Your task to perform on an android device: turn off picture-in-picture Image 0: 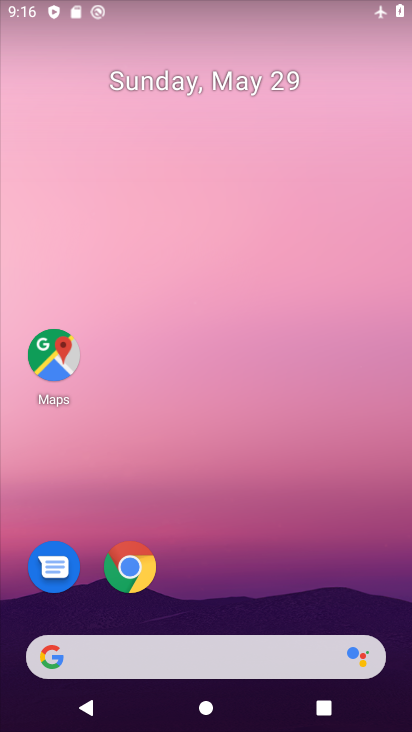
Step 0: drag from (398, 621) to (357, 39)
Your task to perform on an android device: turn off picture-in-picture Image 1: 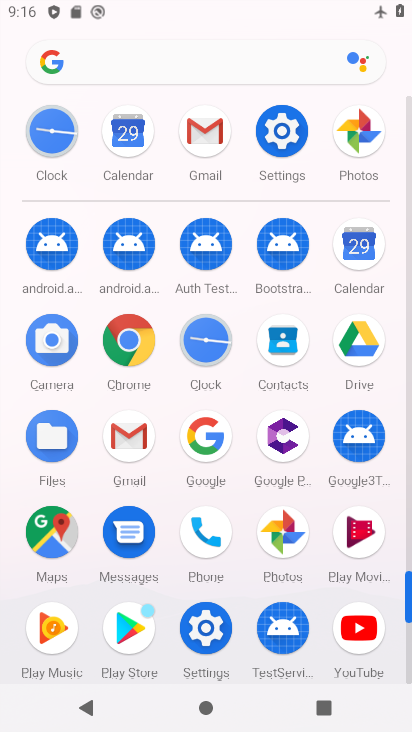
Step 1: click (406, 669)
Your task to perform on an android device: turn off picture-in-picture Image 2: 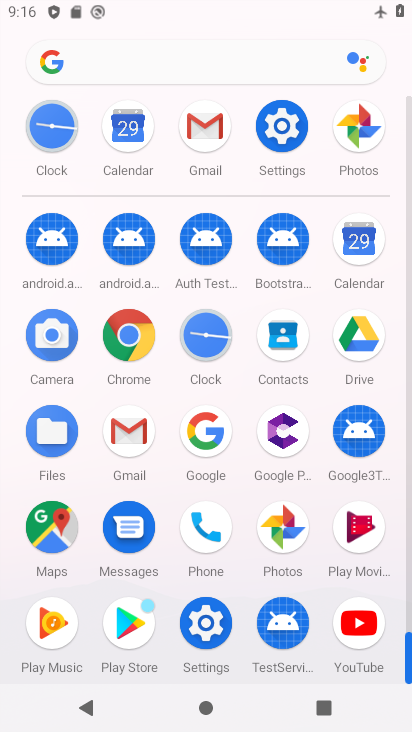
Step 2: click (208, 618)
Your task to perform on an android device: turn off picture-in-picture Image 3: 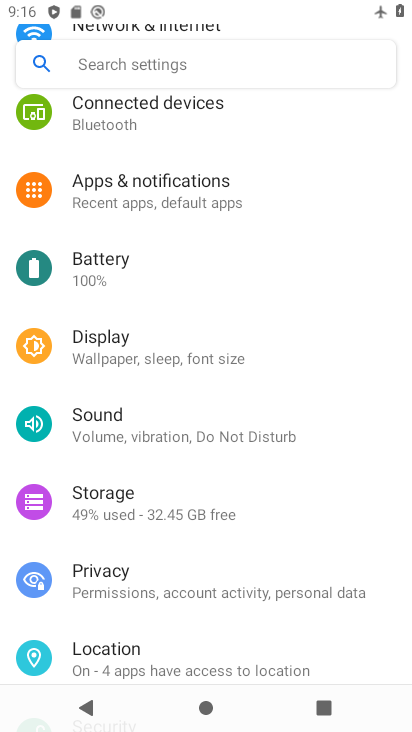
Step 3: click (154, 184)
Your task to perform on an android device: turn off picture-in-picture Image 4: 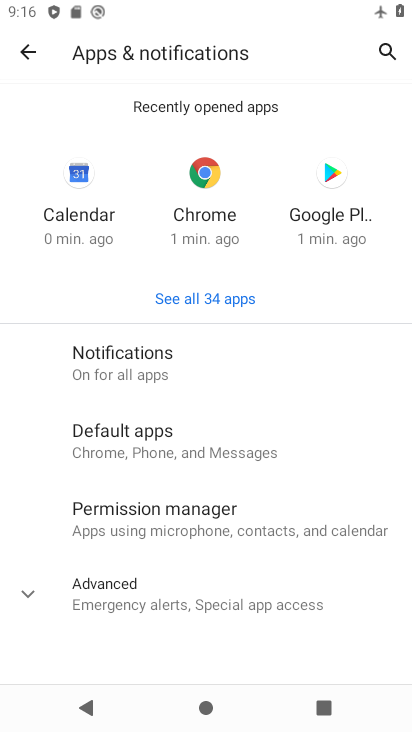
Step 4: click (30, 588)
Your task to perform on an android device: turn off picture-in-picture Image 5: 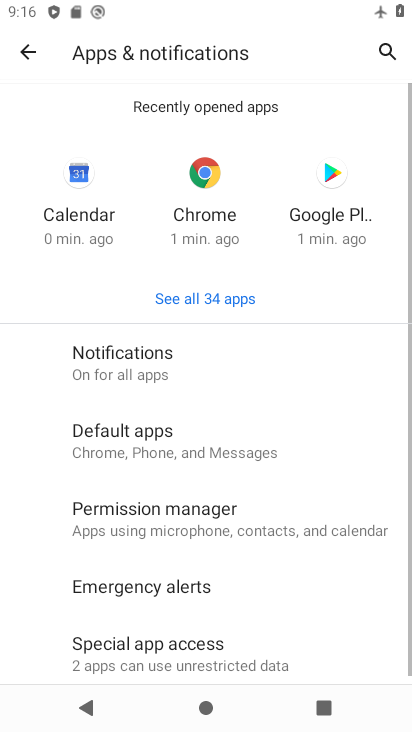
Step 5: drag from (247, 605) to (257, 305)
Your task to perform on an android device: turn off picture-in-picture Image 6: 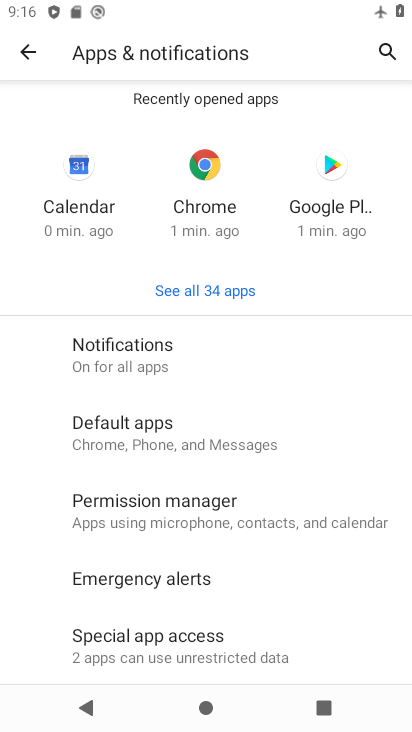
Step 6: click (151, 653)
Your task to perform on an android device: turn off picture-in-picture Image 7: 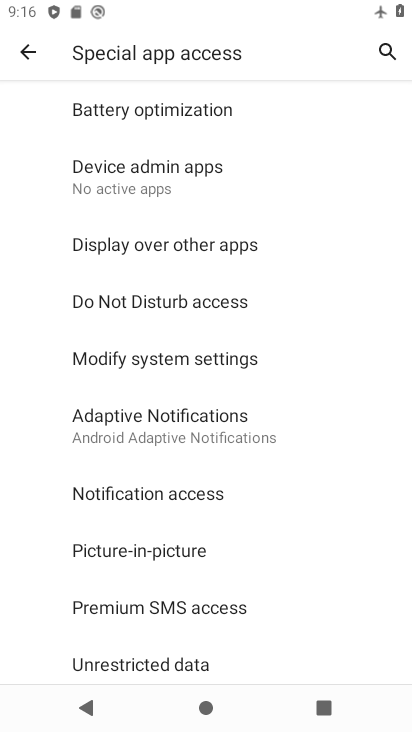
Step 7: click (123, 540)
Your task to perform on an android device: turn off picture-in-picture Image 8: 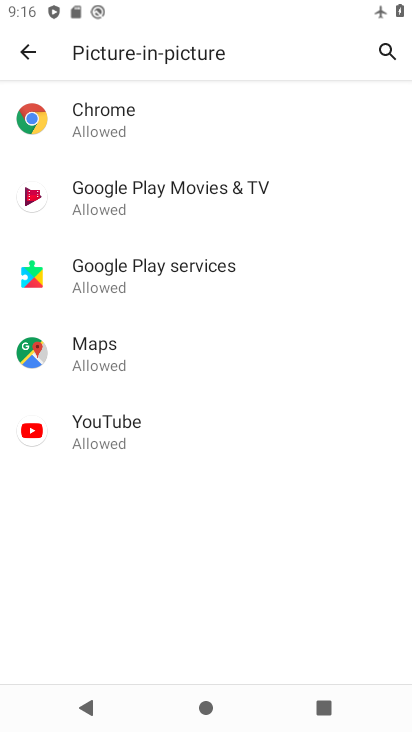
Step 8: click (91, 435)
Your task to perform on an android device: turn off picture-in-picture Image 9: 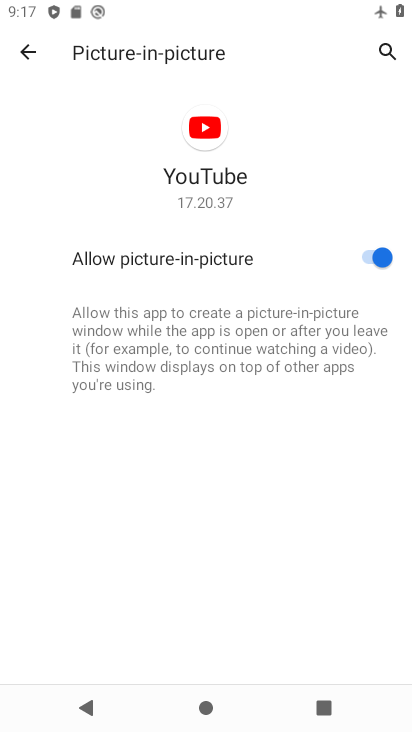
Step 9: click (365, 251)
Your task to perform on an android device: turn off picture-in-picture Image 10: 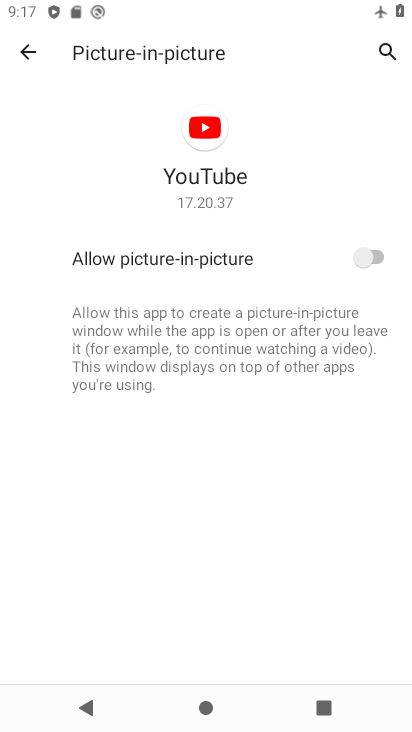
Step 10: task complete